Your task to perform on an android device: Go to Yahoo.com Image 0: 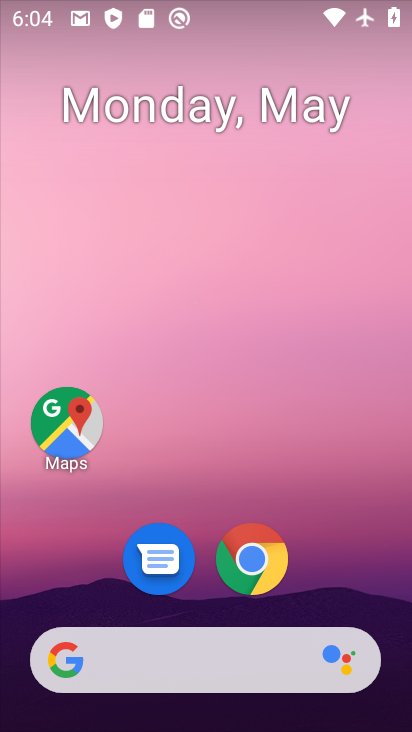
Step 0: click (254, 558)
Your task to perform on an android device: Go to Yahoo.com Image 1: 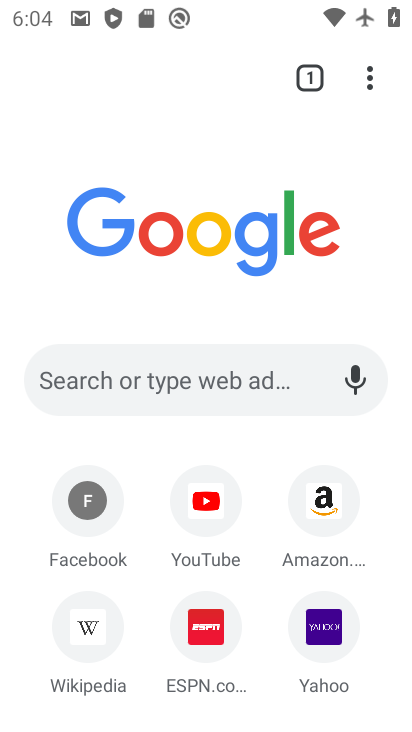
Step 1: click (312, 629)
Your task to perform on an android device: Go to Yahoo.com Image 2: 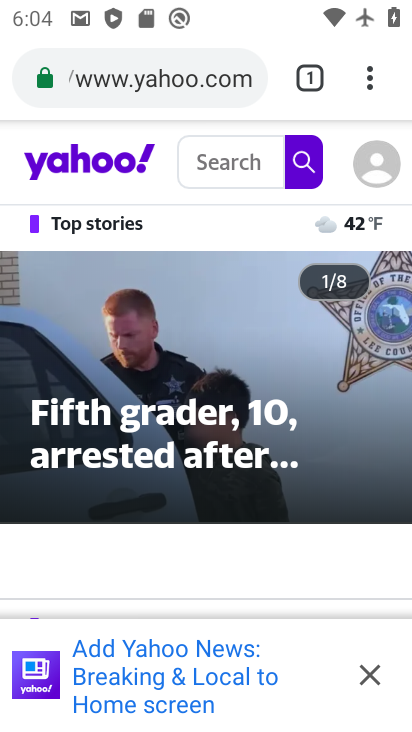
Step 2: task complete